Your task to perform on an android device: Go to Yahoo.com Image 0: 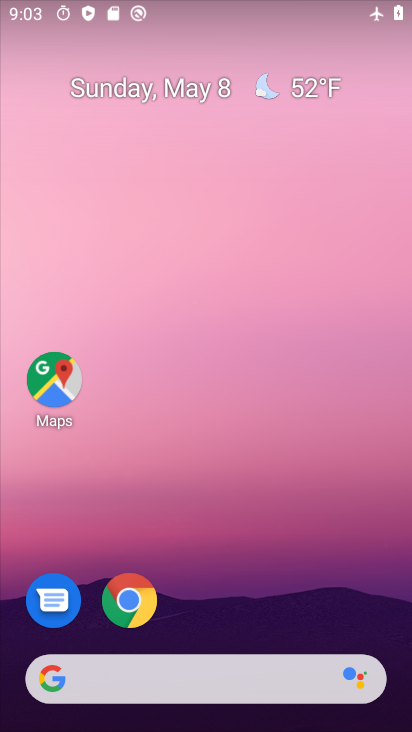
Step 0: click (155, 612)
Your task to perform on an android device: Go to Yahoo.com Image 1: 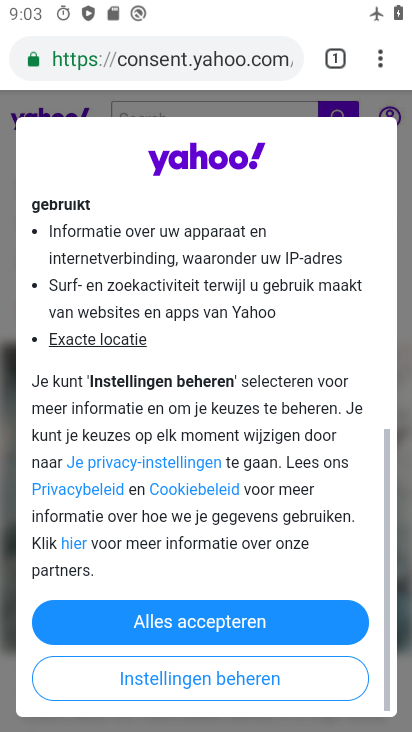
Step 1: click (205, 59)
Your task to perform on an android device: Go to Yahoo.com Image 2: 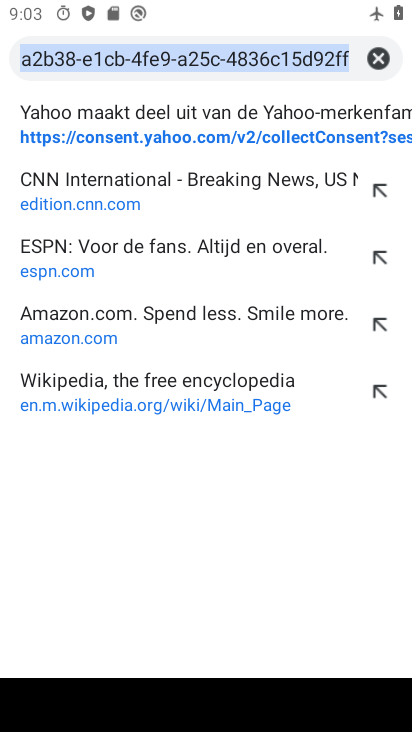
Step 2: type "yahoo.com"
Your task to perform on an android device: Go to Yahoo.com Image 3: 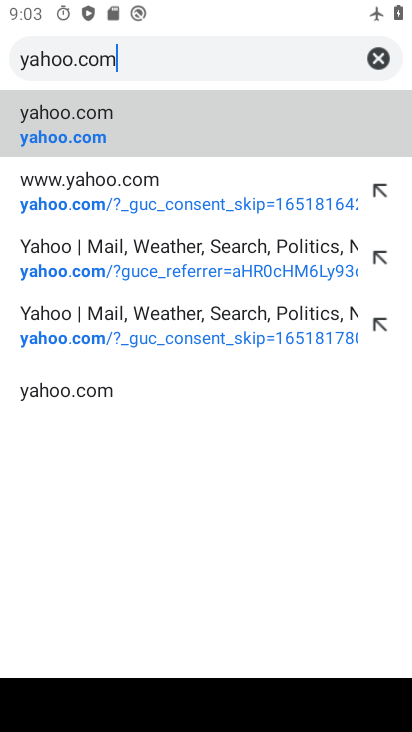
Step 3: click (18, 137)
Your task to perform on an android device: Go to Yahoo.com Image 4: 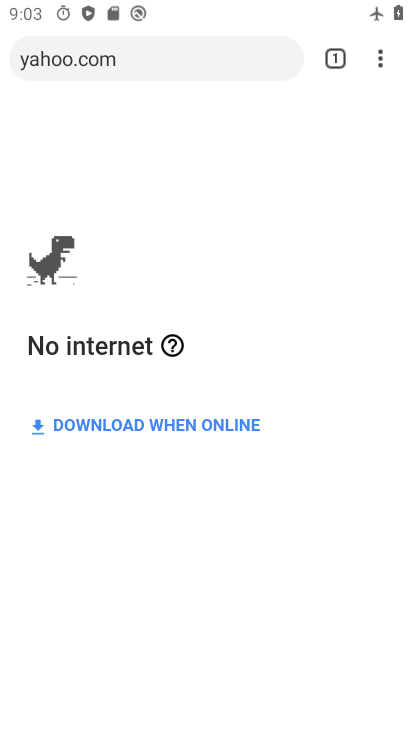
Step 4: task complete